Your task to perform on an android device: Search for hotels in Zurich Image 0: 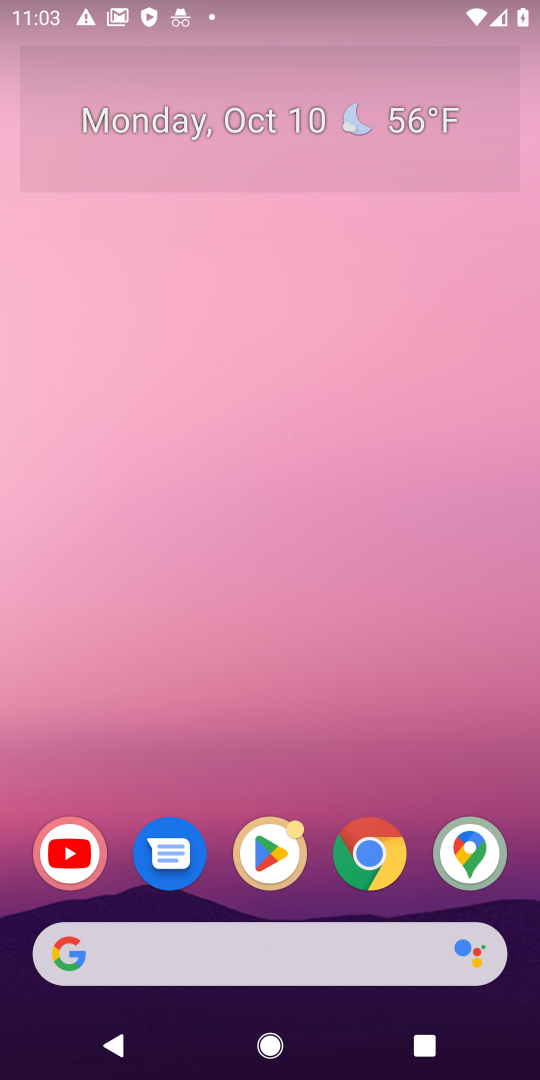
Step 0: press home button
Your task to perform on an android device: Search for hotels in Zurich Image 1: 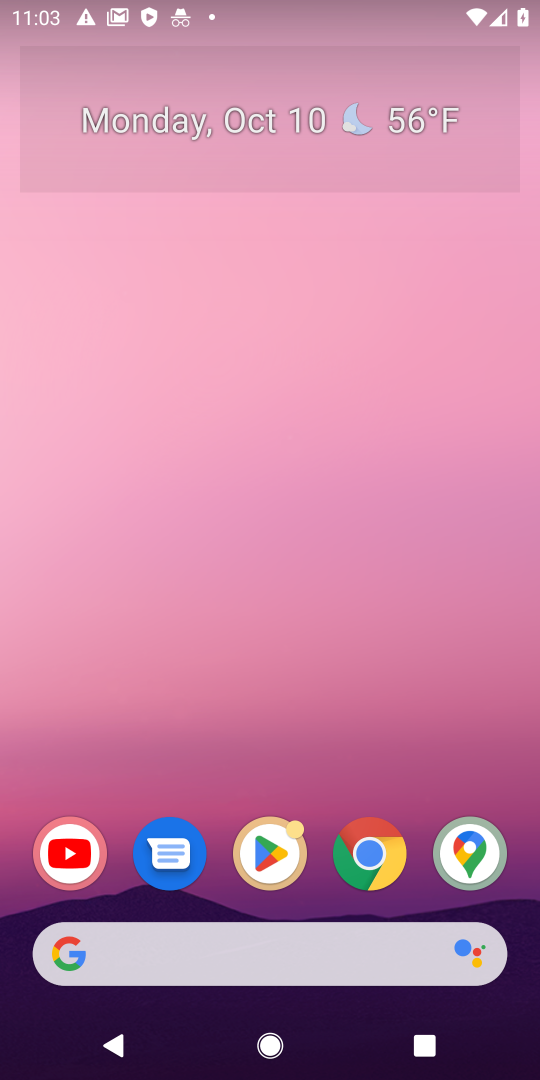
Step 1: click (319, 955)
Your task to perform on an android device: Search for hotels in Zurich Image 2: 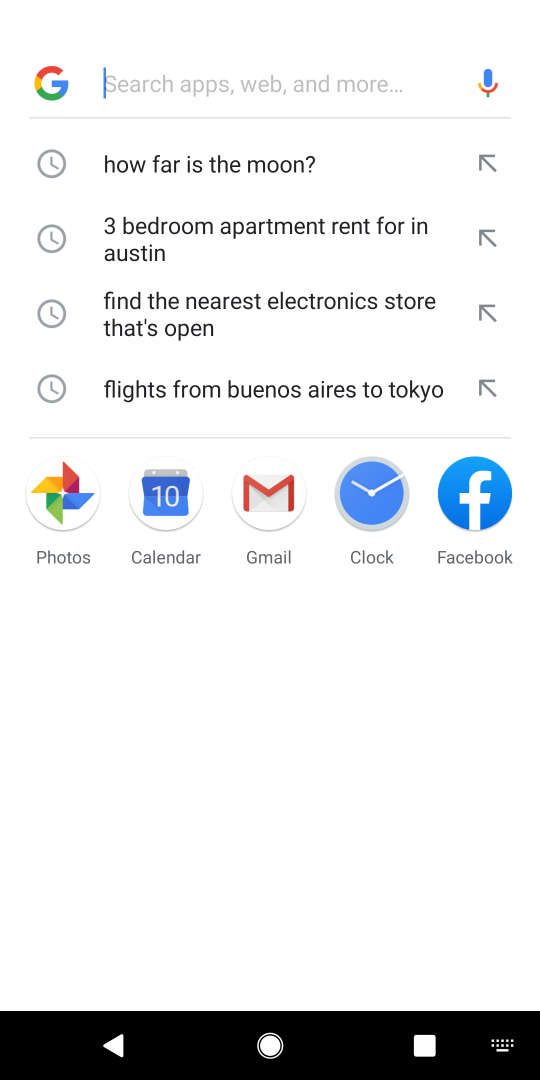
Step 2: type "hotels in Zurich"
Your task to perform on an android device: Search for hotels in Zurich Image 3: 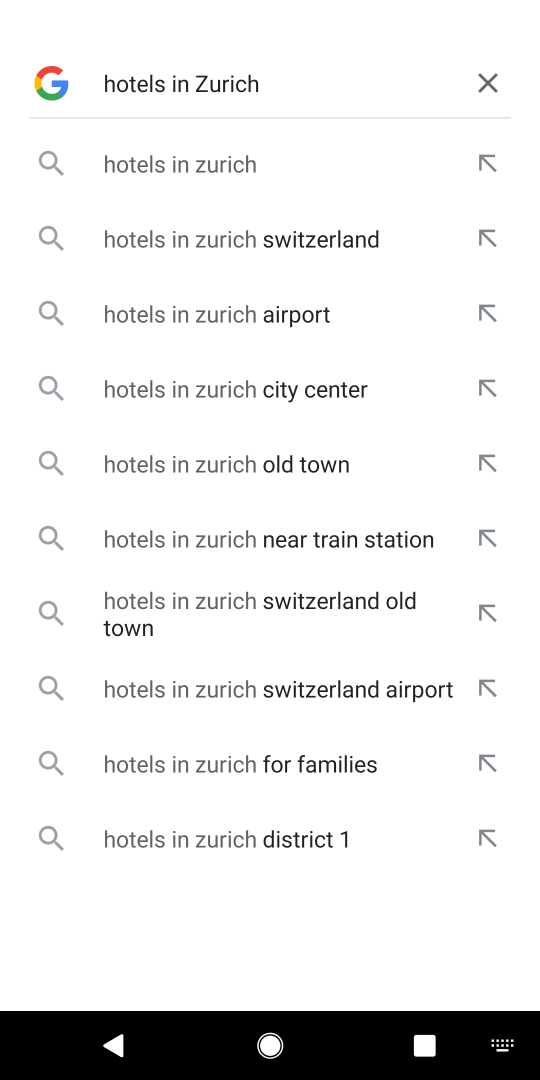
Step 3: press enter
Your task to perform on an android device: Search for hotels in Zurich Image 4: 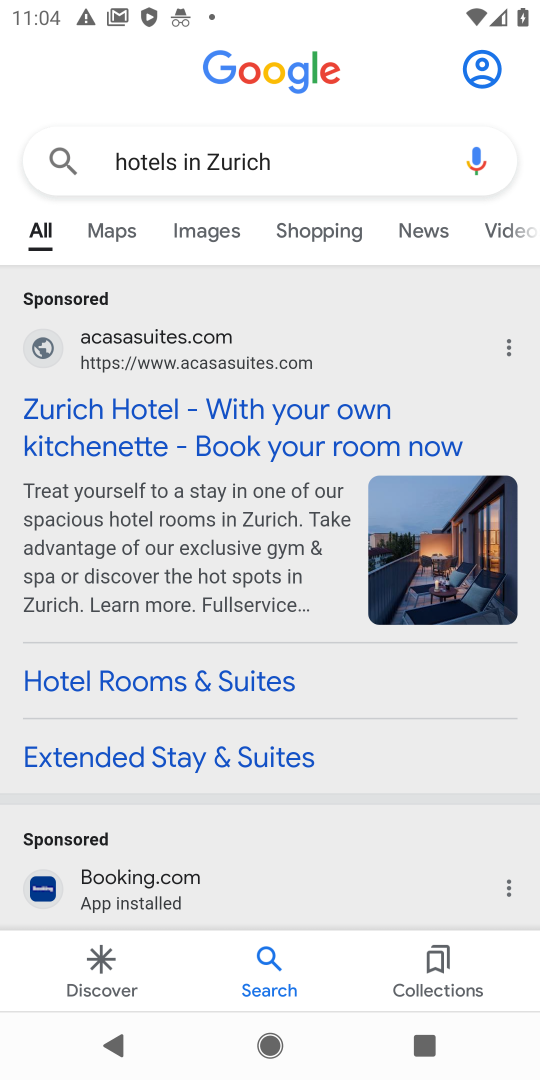
Step 4: drag from (299, 819) to (303, 595)
Your task to perform on an android device: Search for hotels in Zurich Image 5: 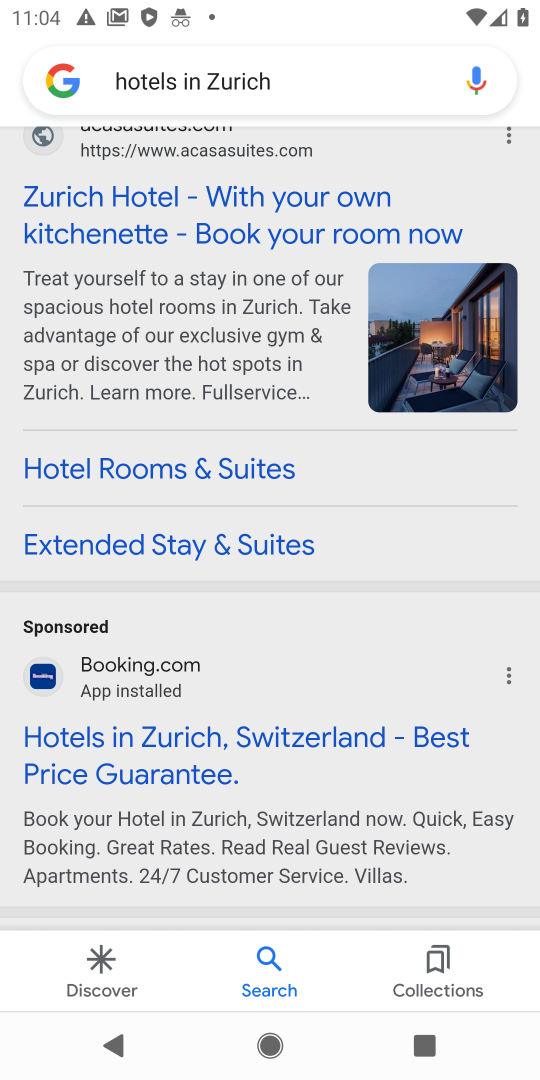
Step 5: click (236, 740)
Your task to perform on an android device: Search for hotels in Zurich Image 6: 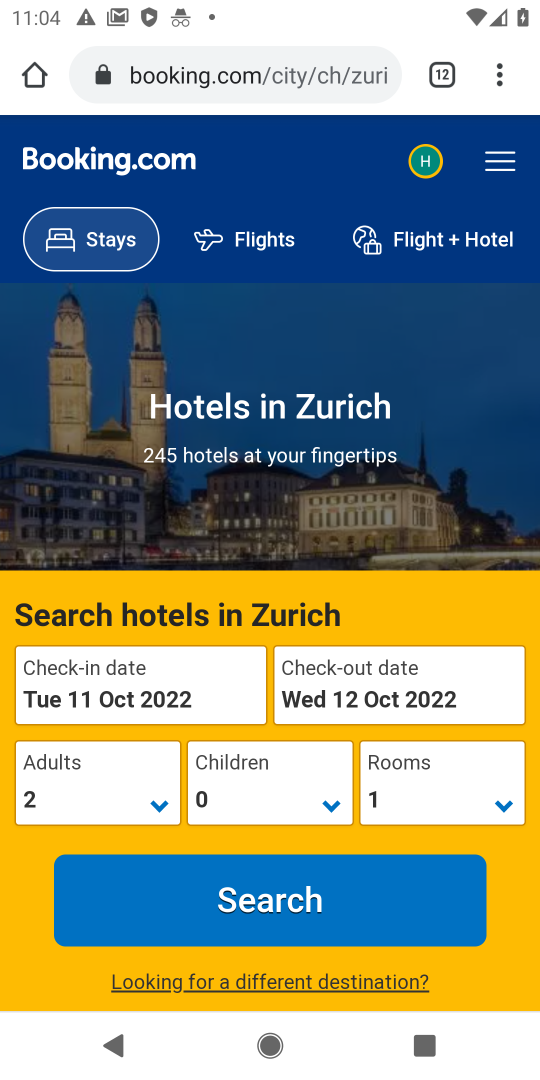
Step 6: click (312, 902)
Your task to perform on an android device: Search for hotels in Zurich Image 7: 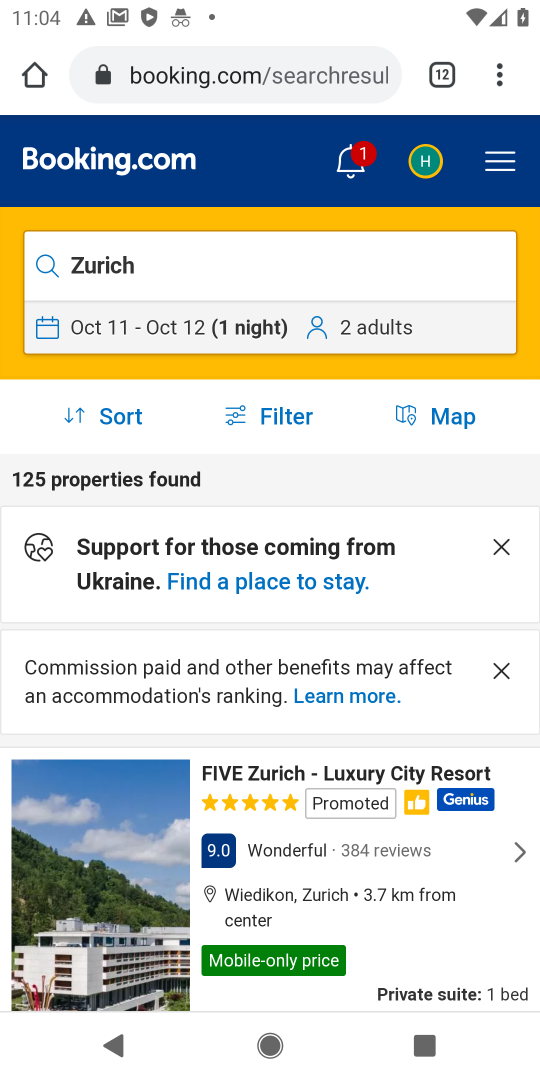
Step 7: task complete